Your task to perform on an android device: turn notification dots on Image 0: 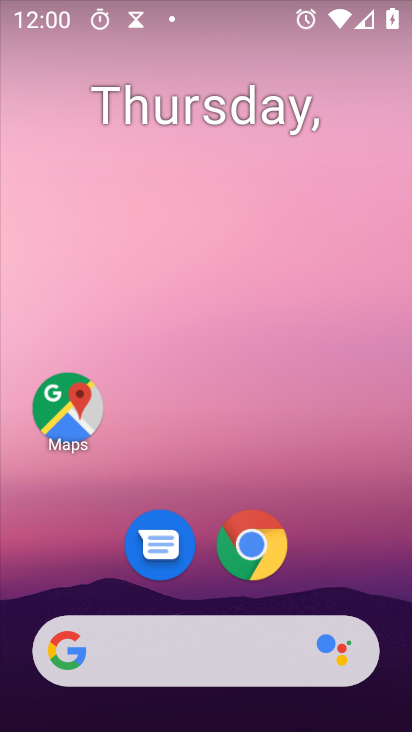
Step 0: press home button
Your task to perform on an android device: turn notification dots on Image 1: 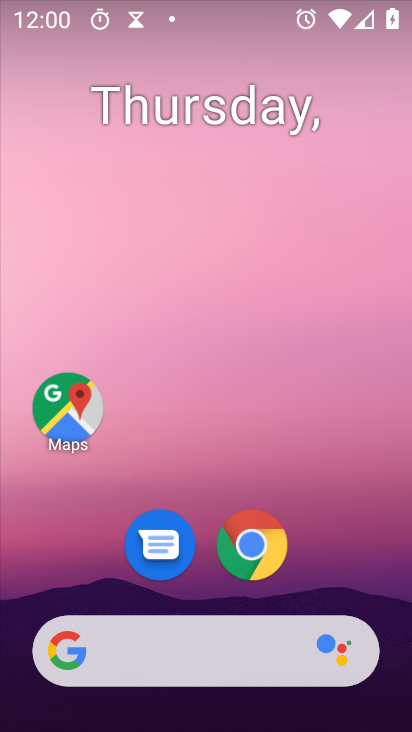
Step 1: drag from (194, 666) to (327, 195)
Your task to perform on an android device: turn notification dots on Image 2: 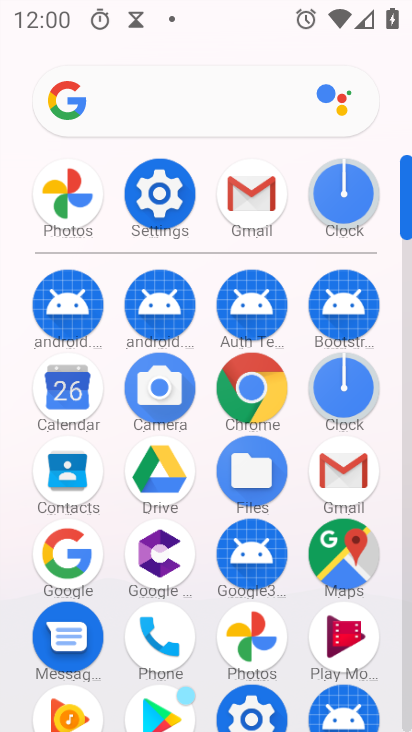
Step 2: click (147, 216)
Your task to perform on an android device: turn notification dots on Image 3: 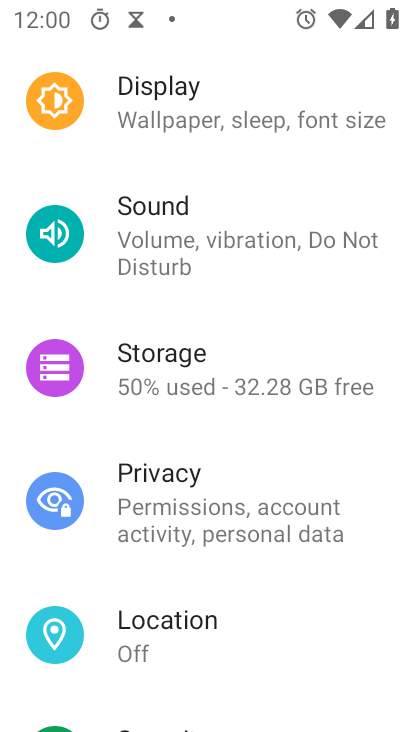
Step 3: drag from (350, 191) to (295, 544)
Your task to perform on an android device: turn notification dots on Image 4: 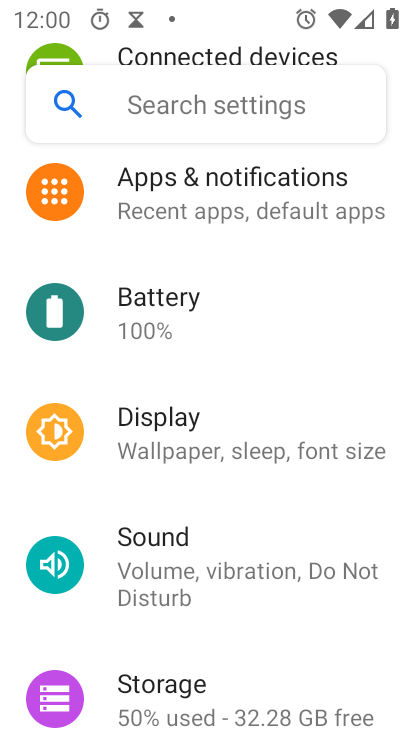
Step 4: click (262, 195)
Your task to perform on an android device: turn notification dots on Image 5: 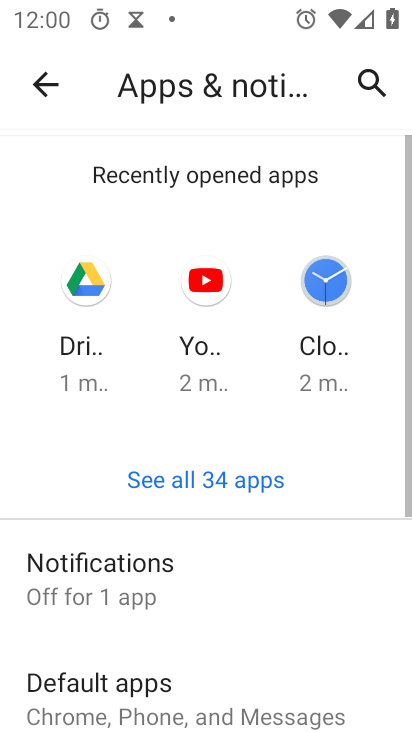
Step 5: click (153, 581)
Your task to perform on an android device: turn notification dots on Image 6: 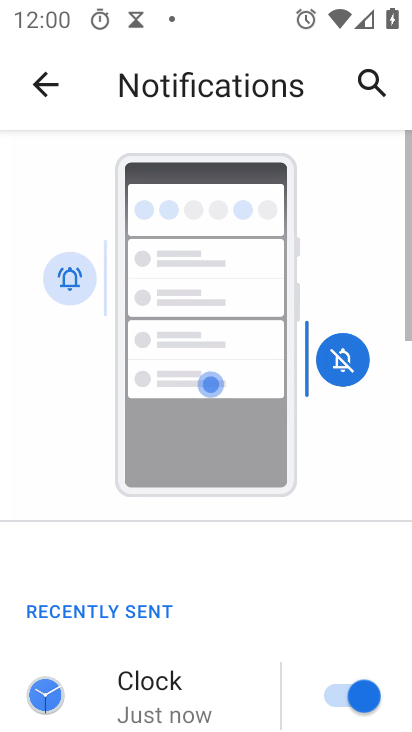
Step 6: drag from (206, 632) to (408, 144)
Your task to perform on an android device: turn notification dots on Image 7: 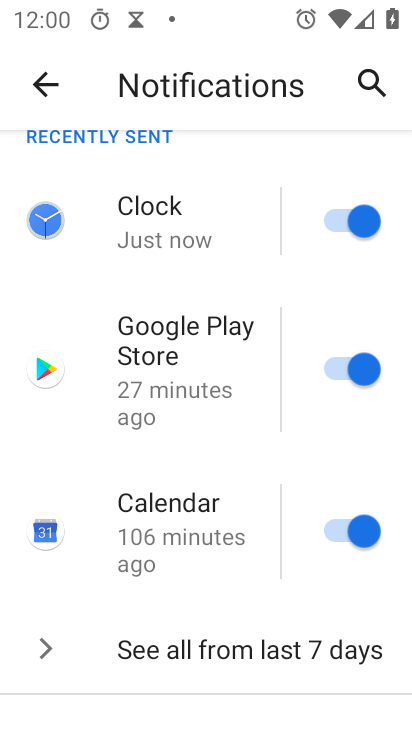
Step 7: drag from (229, 627) to (374, 132)
Your task to perform on an android device: turn notification dots on Image 8: 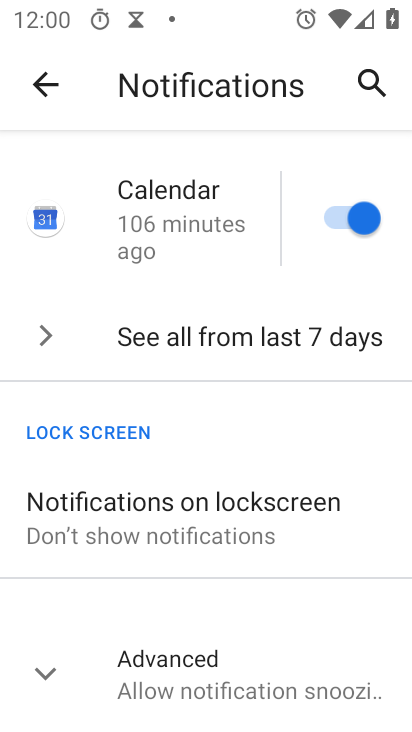
Step 8: click (191, 682)
Your task to perform on an android device: turn notification dots on Image 9: 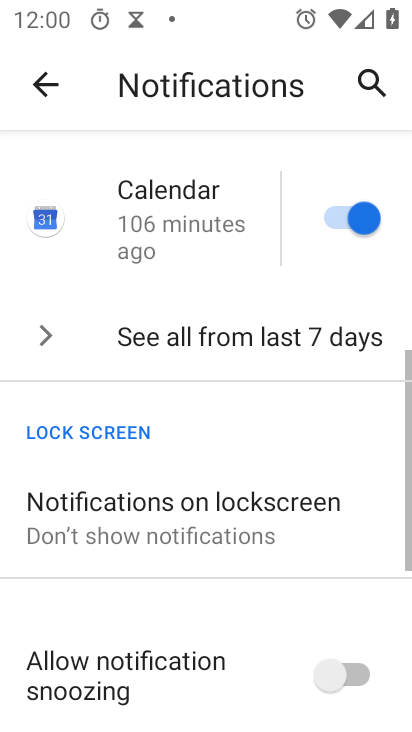
Step 9: task complete